Your task to perform on an android device: When is my next appointment? Image 0: 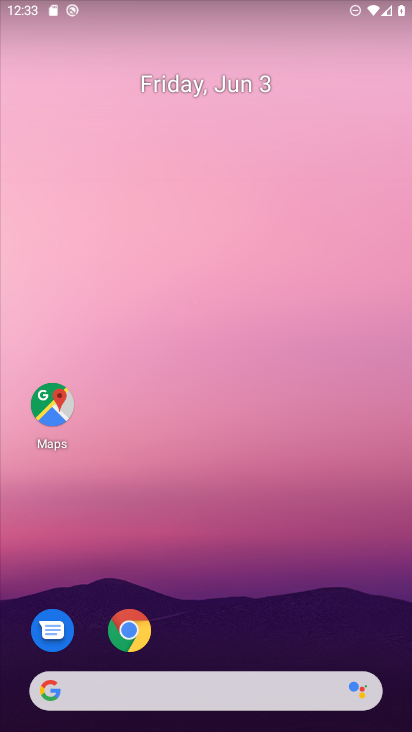
Step 0: drag from (244, 635) to (183, 255)
Your task to perform on an android device: When is my next appointment? Image 1: 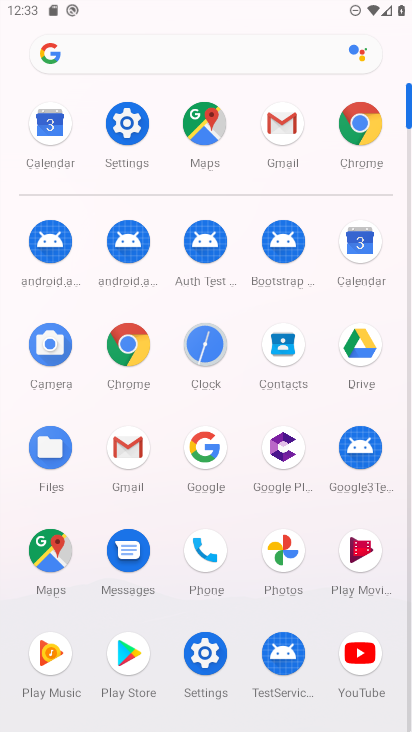
Step 1: click (48, 133)
Your task to perform on an android device: When is my next appointment? Image 2: 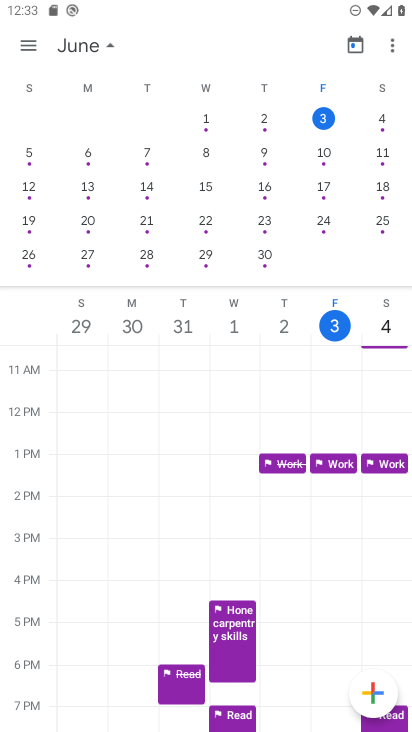
Step 2: click (94, 44)
Your task to perform on an android device: When is my next appointment? Image 3: 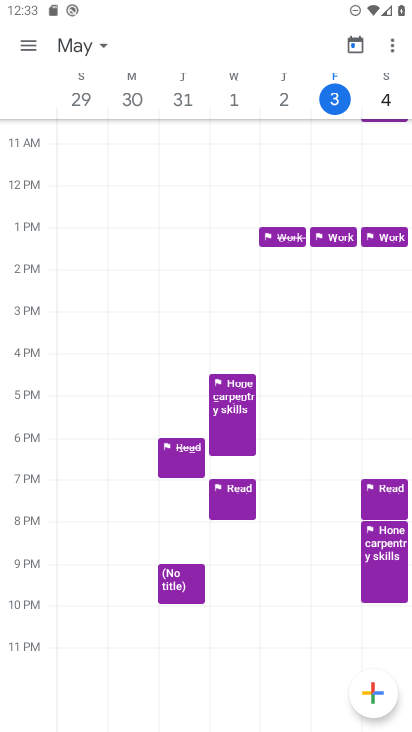
Step 3: click (22, 50)
Your task to perform on an android device: When is my next appointment? Image 4: 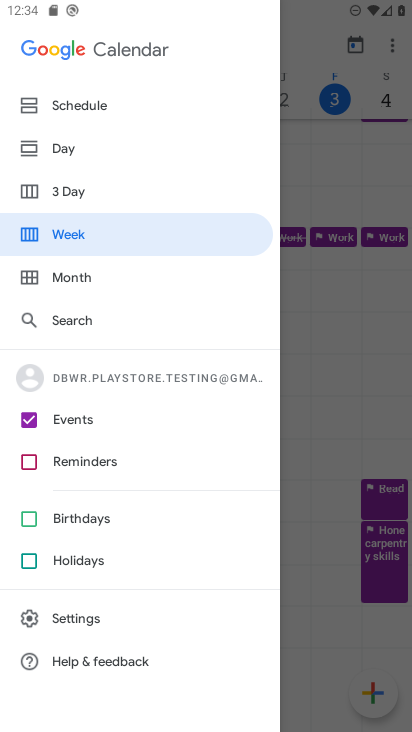
Step 4: click (53, 93)
Your task to perform on an android device: When is my next appointment? Image 5: 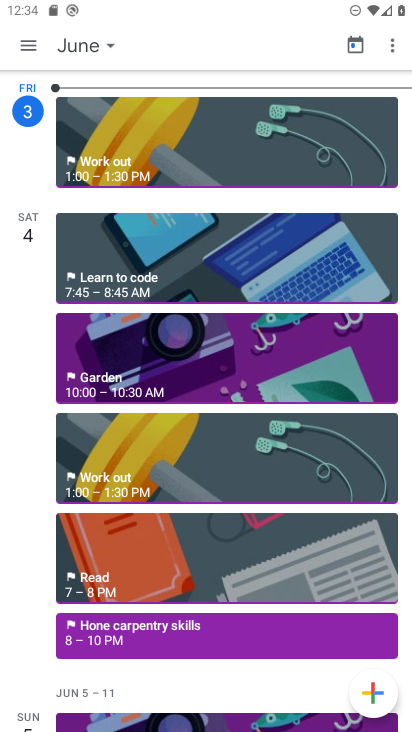
Step 5: task complete